Your task to perform on an android device: toggle improve location accuracy Image 0: 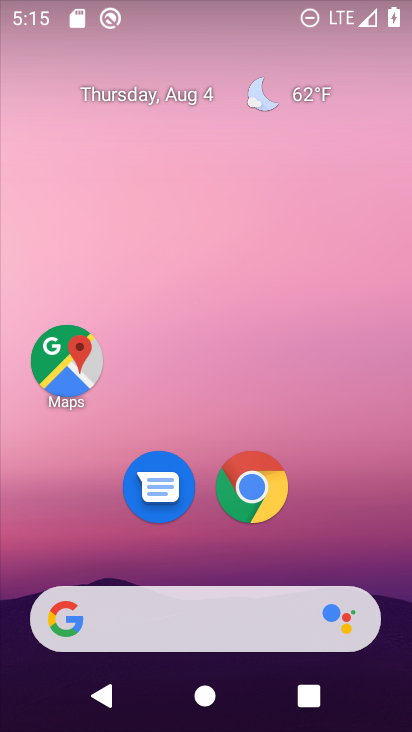
Step 0: drag from (199, 495) to (229, 4)
Your task to perform on an android device: toggle improve location accuracy Image 1: 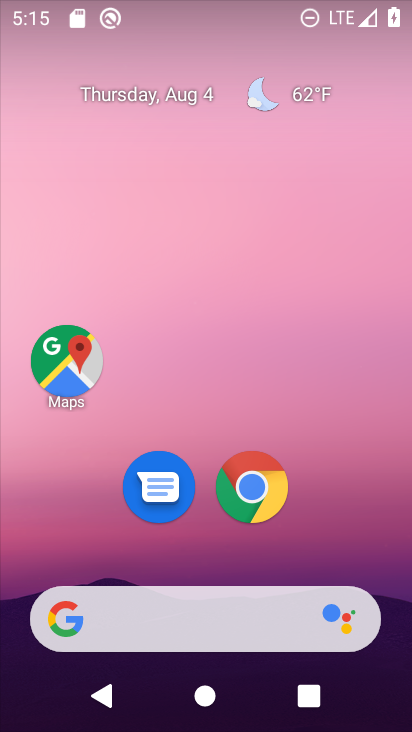
Step 1: drag from (78, 554) to (177, 39)
Your task to perform on an android device: toggle improve location accuracy Image 2: 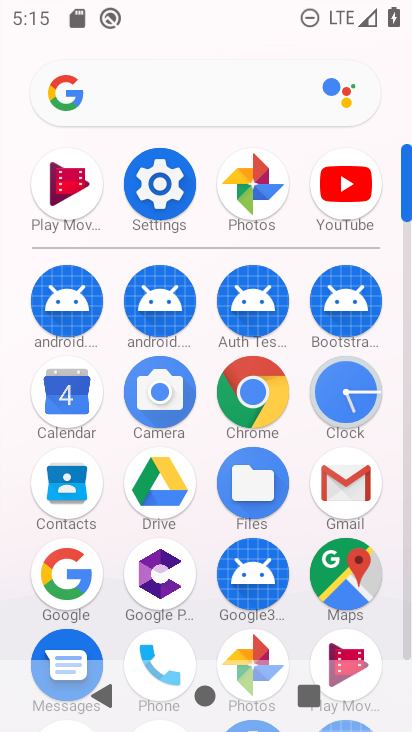
Step 2: click (156, 184)
Your task to perform on an android device: toggle improve location accuracy Image 3: 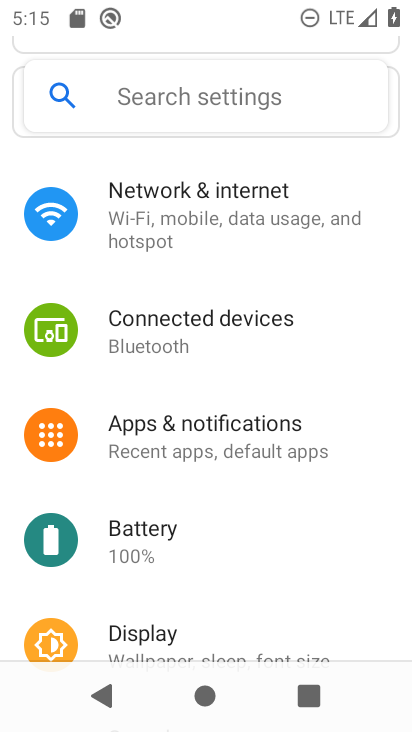
Step 3: drag from (202, 570) to (408, 92)
Your task to perform on an android device: toggle improve location accuracy Image 4: 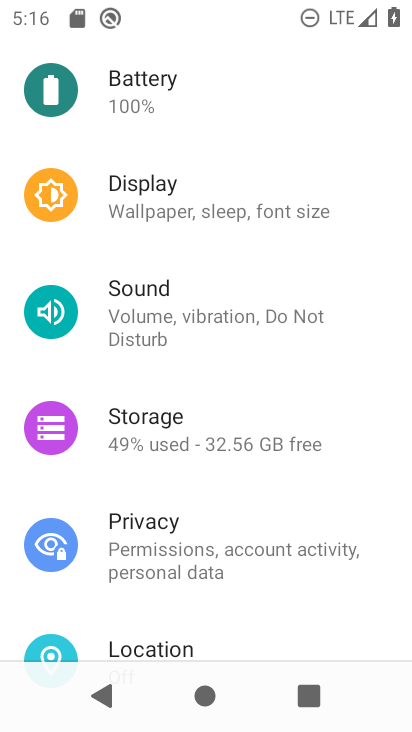
Step 4: click (140, 641)
Your task to perform on an android device: toggle improve location accuracy Image 5: 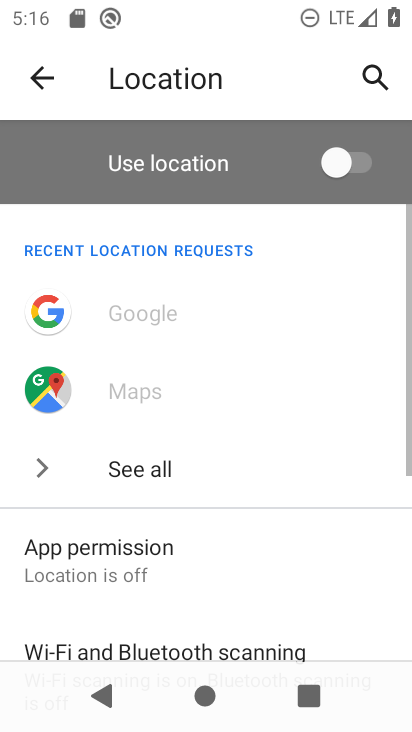
Step 5: drag from (137, 639) to (326, 18)
Your task to perform on an android device: toggle improve location accuracy Image 6: 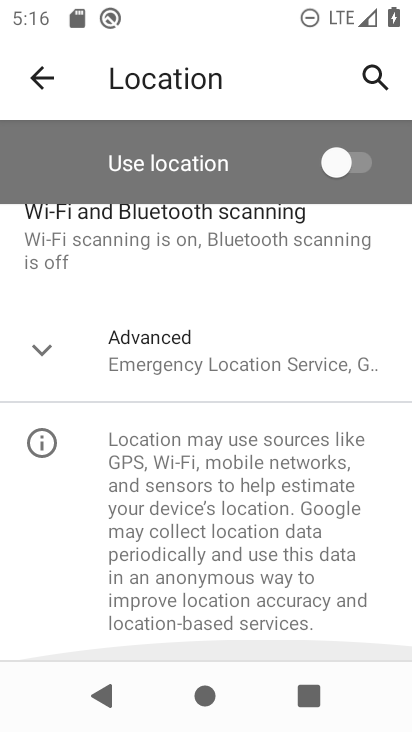
Step 6: click (181, 341)
Your task to perform on an android device: toggle improve location accuracy Image 7: 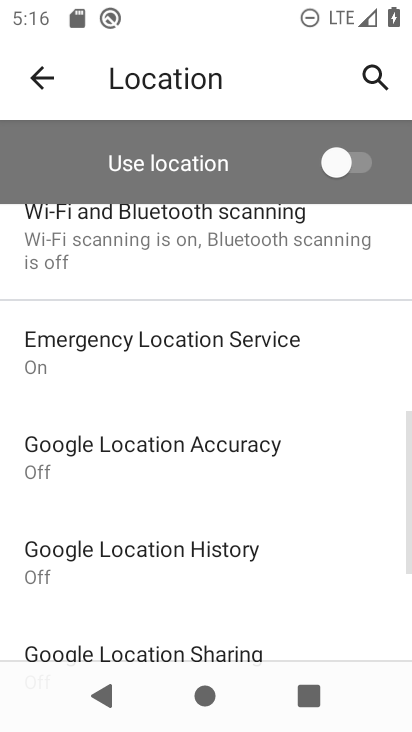
Step 7: click (180, 438)
Your task to perform on an android device: toggle improve location accuracy Image 8: 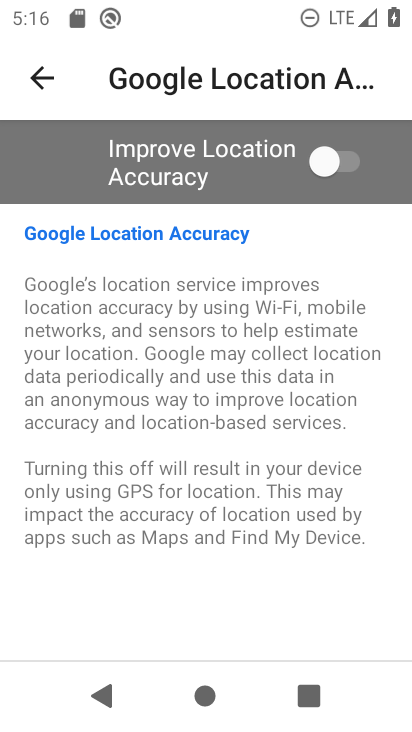
Step 8: click (332, 163)
Your task to perform on an android device: toggle improve location accuracy Image 9: 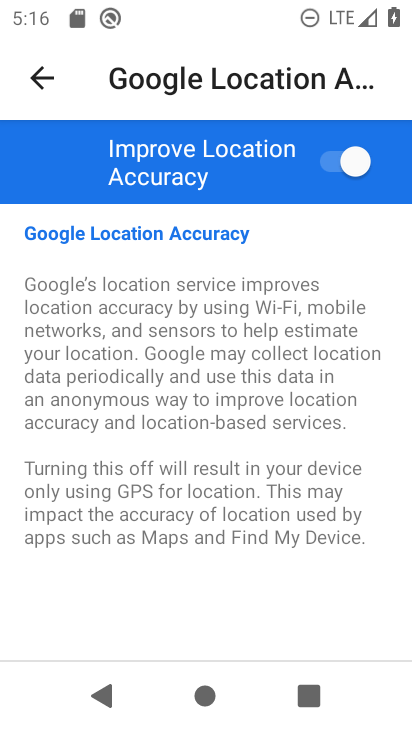
Step 9: task complete